Your task to perform on an android device: Open calendar and show me the first week of next month Image 0: 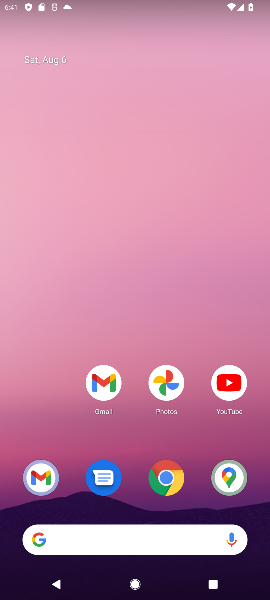
Step 0: press home button
Your task to perform on an android device: Open calendar and show me the first week of next month Image 1: 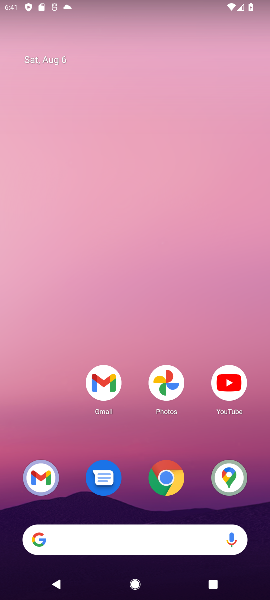
Step 1: drag from (243, 353) to (267, 195)
Your task to perform on an android device: Open calendar and show me the first week of next month Image 2: 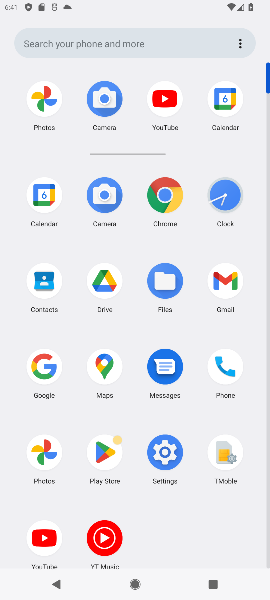
Step 2: drag from (211, 309) to (231, 242)
Your task to perform on an android device: Open calendar and show me the first week of next month Image 3: 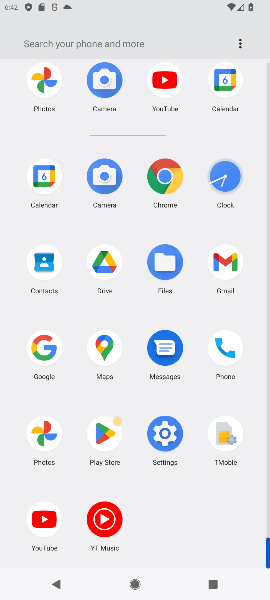
Step 3: click (47, 173)
Your task to perform on an android device: Open calendar and show me the first week of next month Image 4: 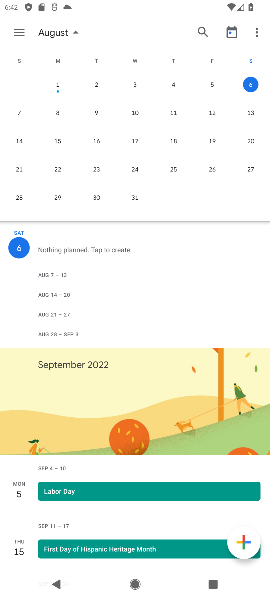
Step 4: task complete